Your task to perform on an android device: Is it going to rain tomorrow? Image 0: 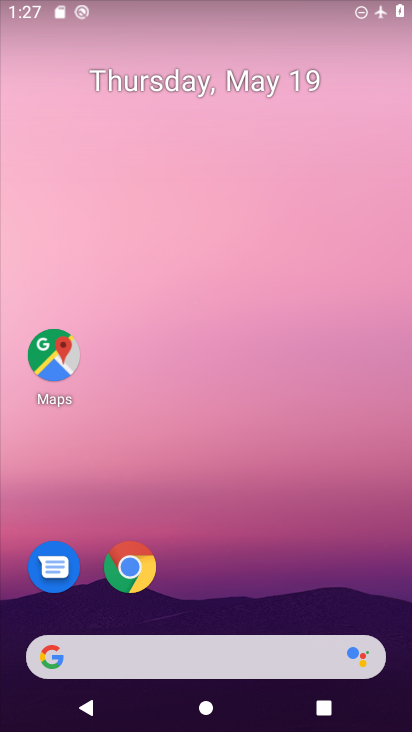
Step 0: click (274, 652)
Your task to perform on an android device: Is it going to rain tomorrow? Image 1: 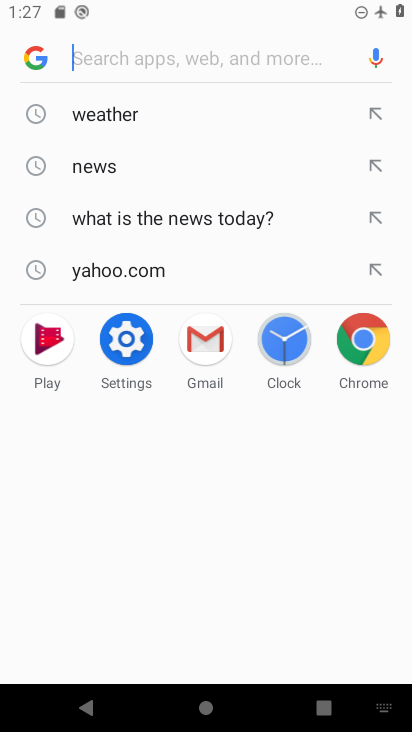
Step 1: click (84, 108)
Your task to perform on an android device: Is it going to rain tomorrow? Image 2: 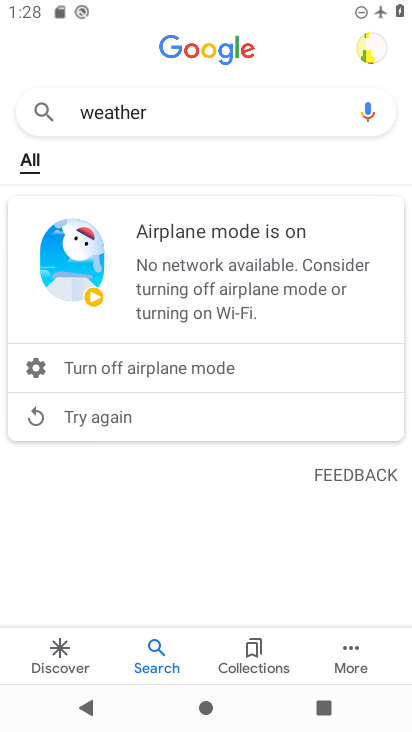
Step 2: task complete